Your task to perform on an android device: Look up the best rated gaming chair on Best Buy Image 0: 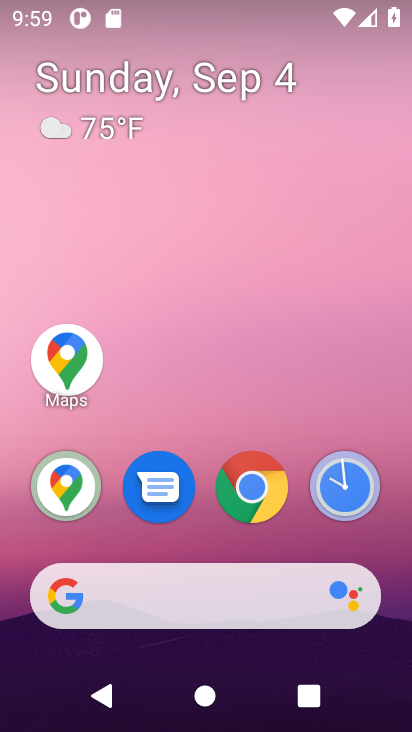
Step 0: click (79, 337)
Your task to perform on an android device: Look up the best rated gaming chair on Best Buy Image 1: 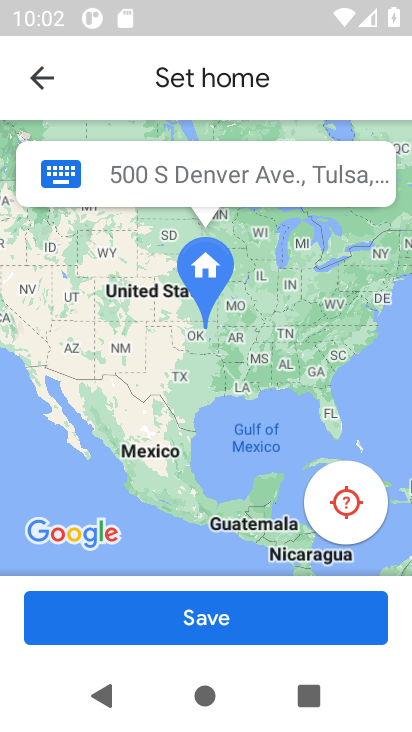
Step 1: click (122, 620)
Your task to perform on an android device: Look up the best rated gaming chair on Best Buy Image 2: 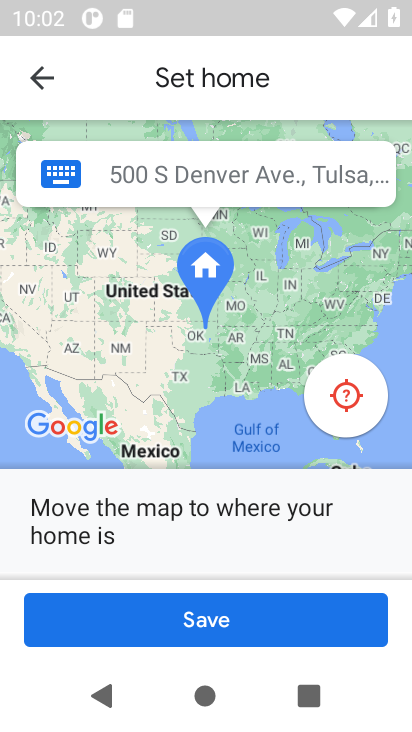
Step 2: task complete